Your task to perform on an android device: Open sound settings Image 0: 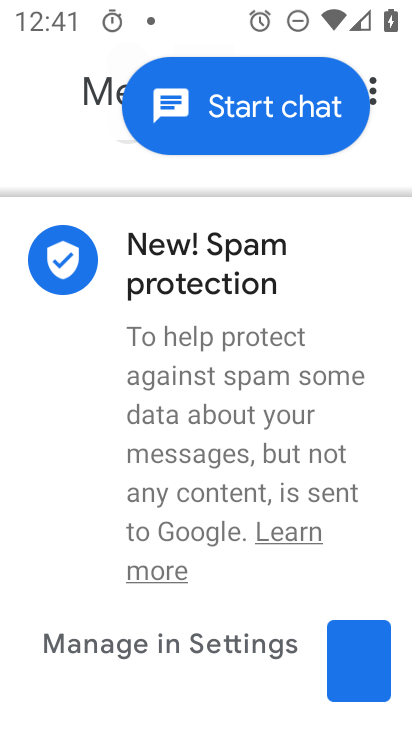
Step 0: press home button
Your task to perform on an android device: Open sound settings Image 1: 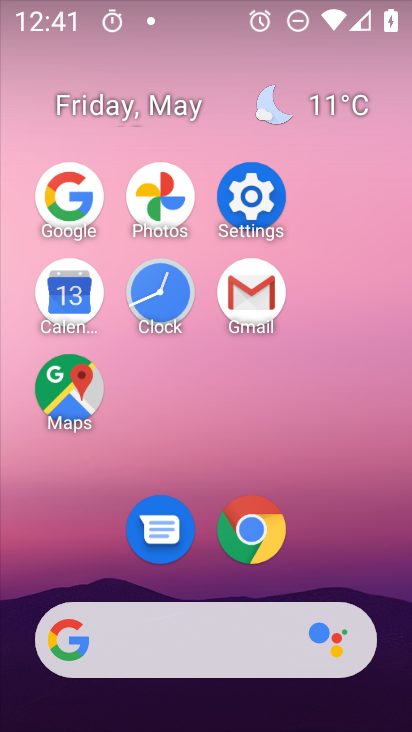
Step 1: click (252, 183)
Your task to perform on an android device: Open sound settings Image 2: 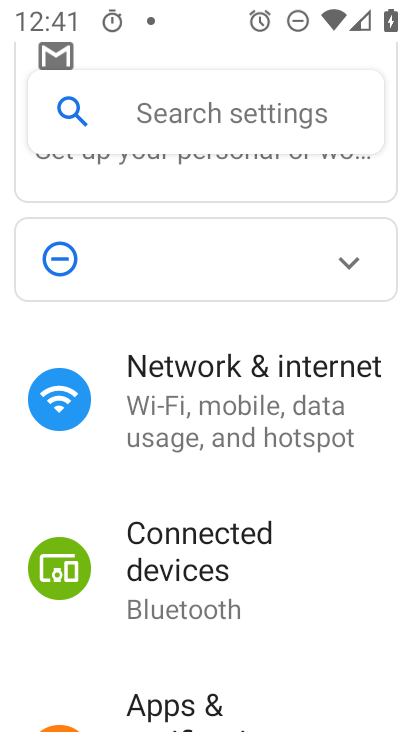
Step 2: drag from (280, 623) to (295, 135)
Your task to perform on an android device: Open sound settings Image 3: 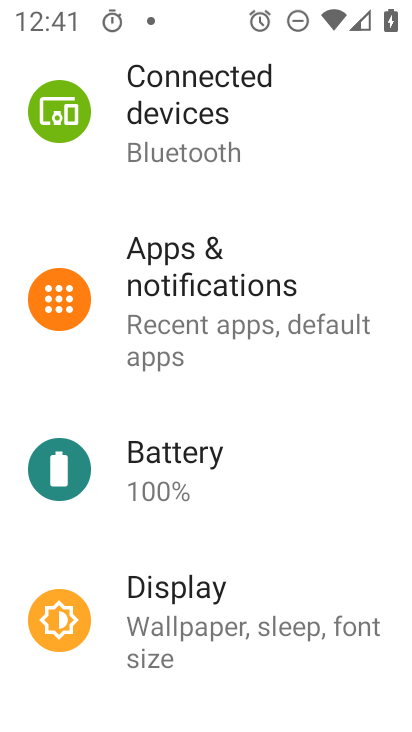
Step 3: drag from (262, 570) to (272, 186)
Your task to perform on an android device: Open sound settings Image 4: 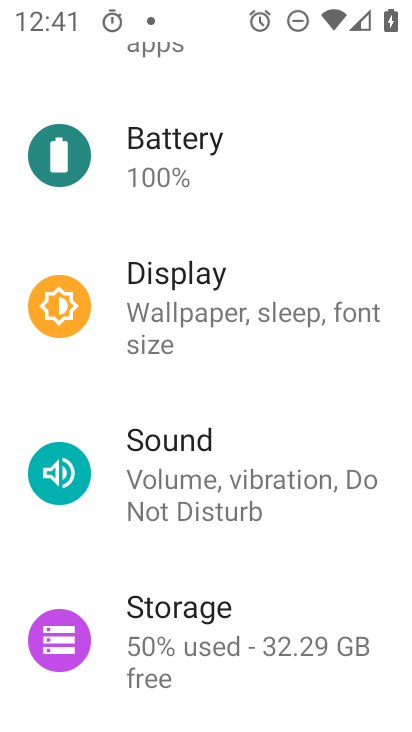
Step 4: click (239, 492)
Your task to perform on an android device: Open sound settings Image 5: 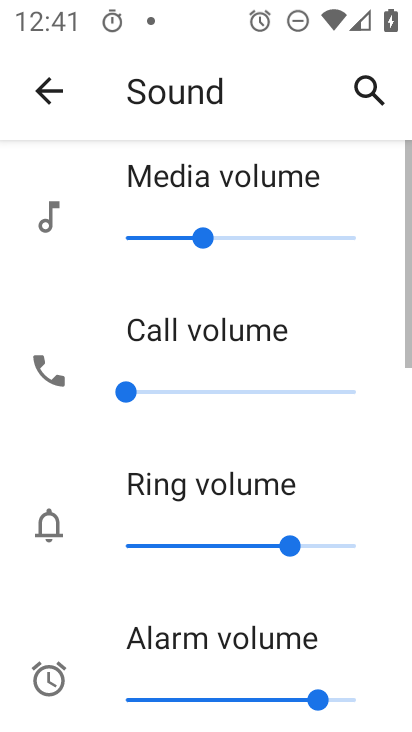
Step 5: task complete